Your task to perform on an android device: allow notifications from all sites in the chrome app Image 0: 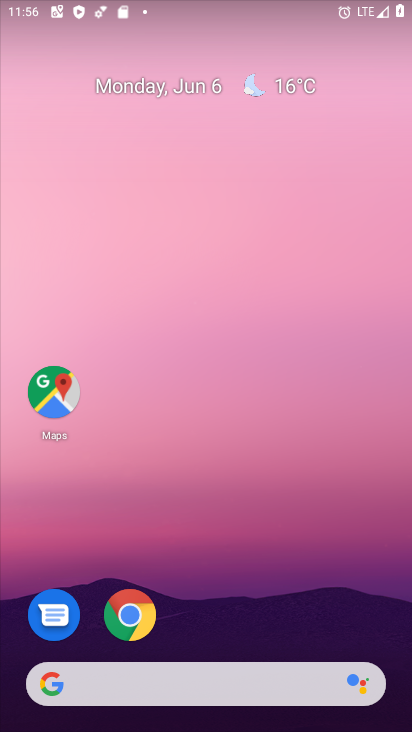
Step 0: press home button
Your task to perform on an android device: allow notifications from all sites in the chrome app Image 1: 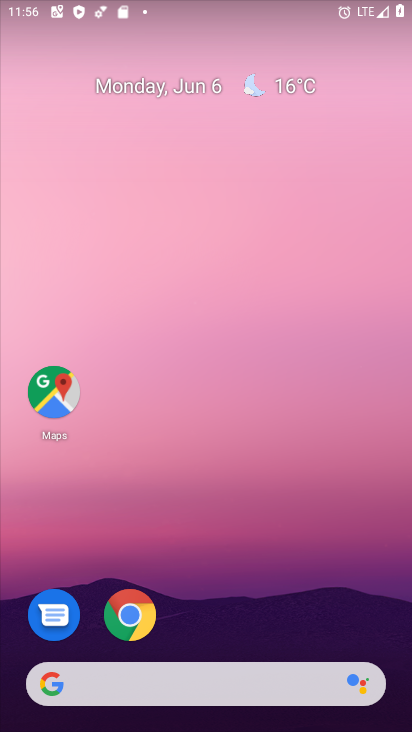
Step 1: click (132, 606)
Your task to perform on an android device: allow notifications from all sites in the chrome app Image 2: 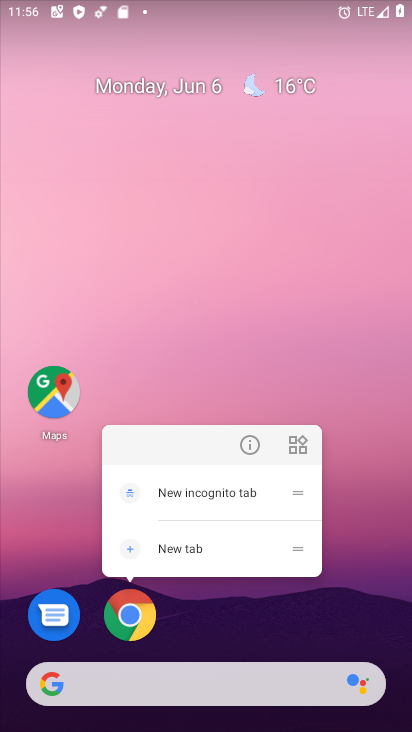
Step 2: click (127, 608)
Your task to perform on an android device: allow notifications from all sites in the chrome app Image 3: 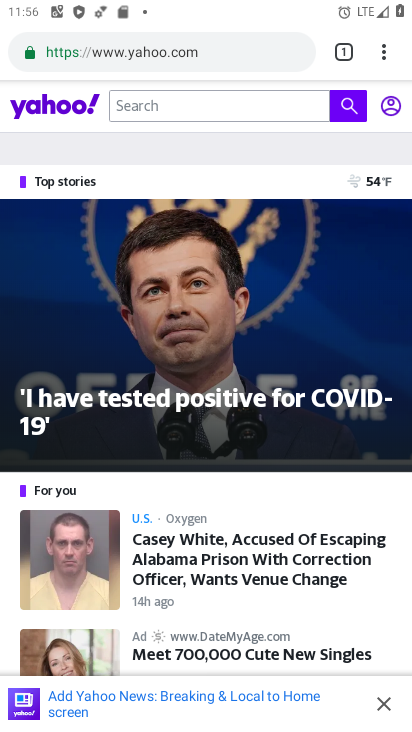
Step 3: click (385, 47)
Your task to perform on an android device: allow notifications from all sites in the chrome app Image 4: 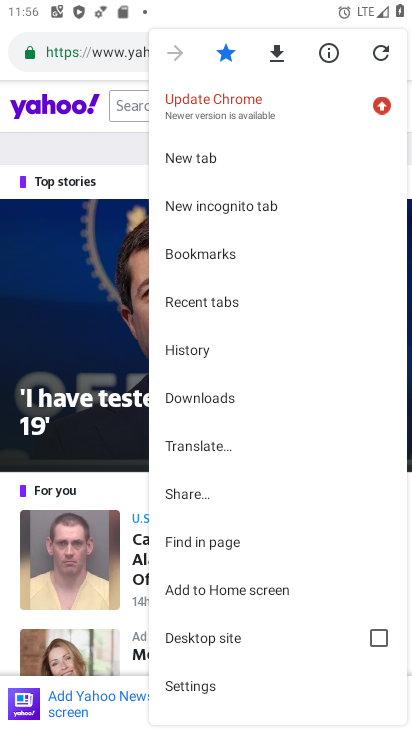
Step 4: click (218, 687)
Your task to perform on an android device: allow notifications from all sites in the chrome app Image 5: 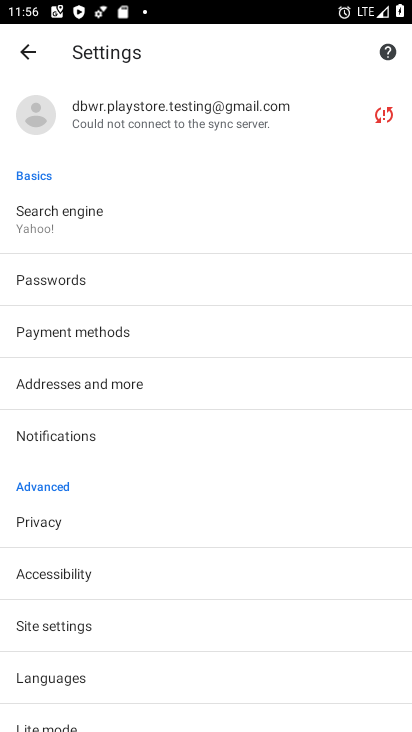
Step 5: click (120, 619)
Your task to perform on an android device: allow notifications from all sites in the chrome app Image 6: 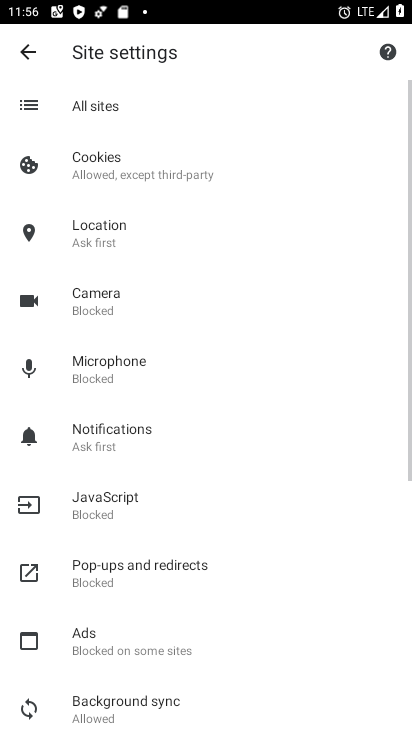
Step 6: click (141, 102)
Your task to perform on an android device: allow notifications from all sites in the chrome app Image 7: 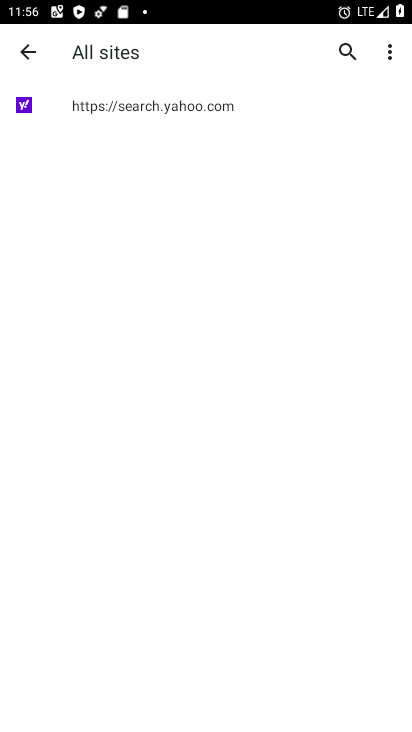
Step 7: click (140, 102)
Your task to perform on an android device: allow notifications from all sites in the chrome app Image 8: 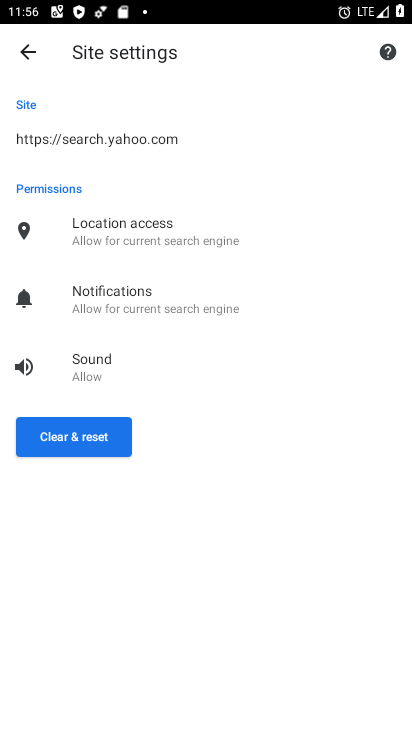
Step 8: task complete